Your task to perform on an android device: remove spam from my inbox in the gmail app Image 0: 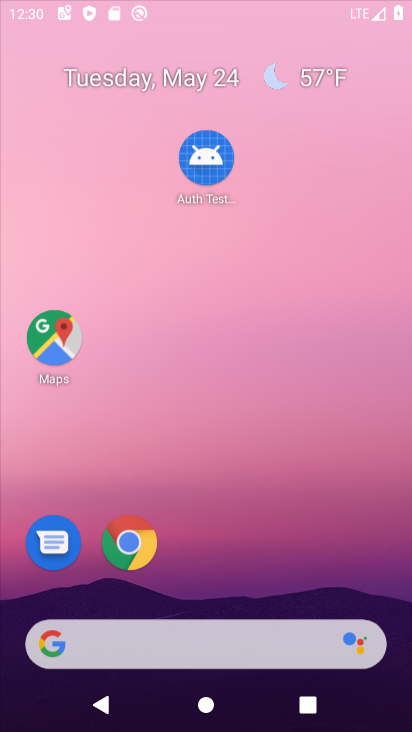
Step 0: click (346, 90)
Your task to perform on an android device: remove spam from my inbox in the gmail app Image 1: 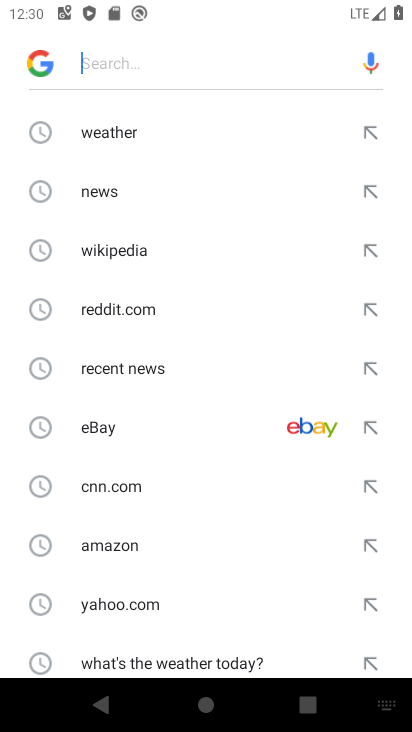
Step 1: press home button
Your task to perform on an android device: remove spam from my inbox in the gmail app Image 2: 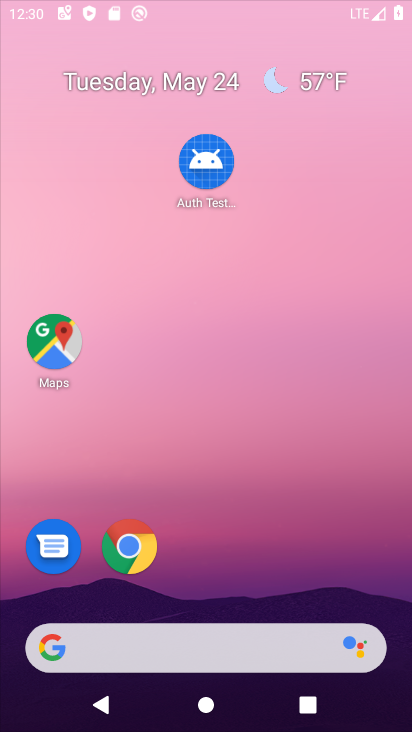
Step 2: drag from (185, 617) to (317, 67)
Your task to perform on an android device: remove spam from my inbox in the gmail app Image 3: 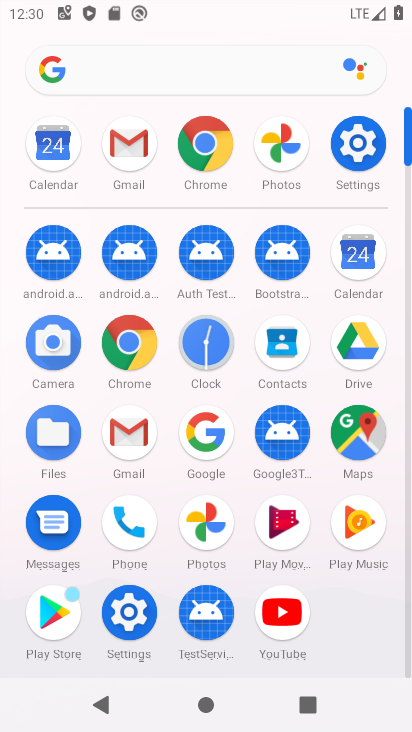
Step 3: click (143, 440)
Your task to perform on an android device: remove spam from my inbox in the gmail app Image 4: 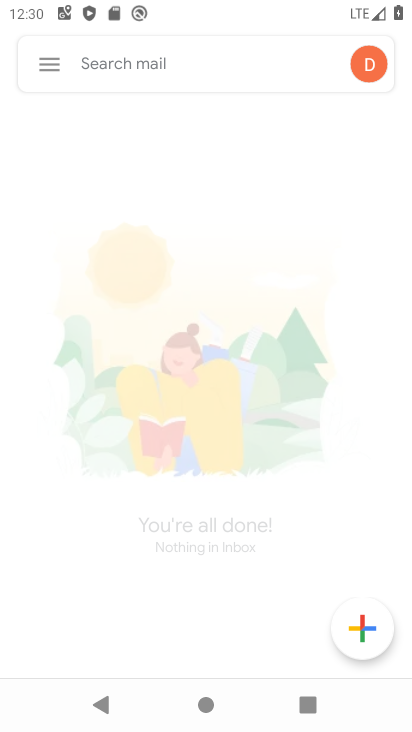
Step 4: drag from (198, 577) to (306, 146)
Your task to perform on an android device: remove spam from my inbox in the gmail app Image 5: 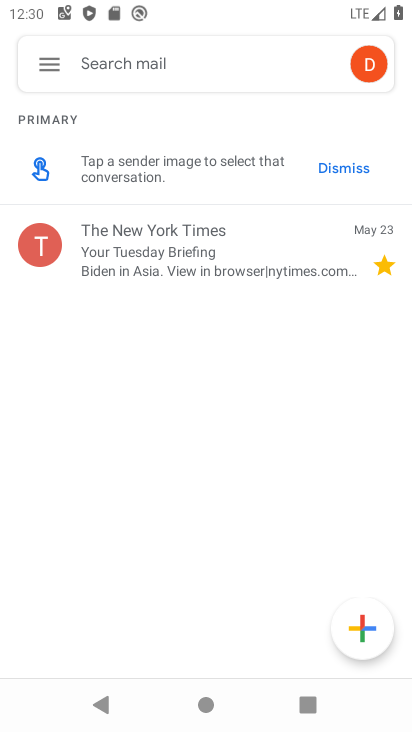
Step 5: click (81, 61)
Your task to perform on an android device: remove spam from my inbox in the gmail app Image 6: 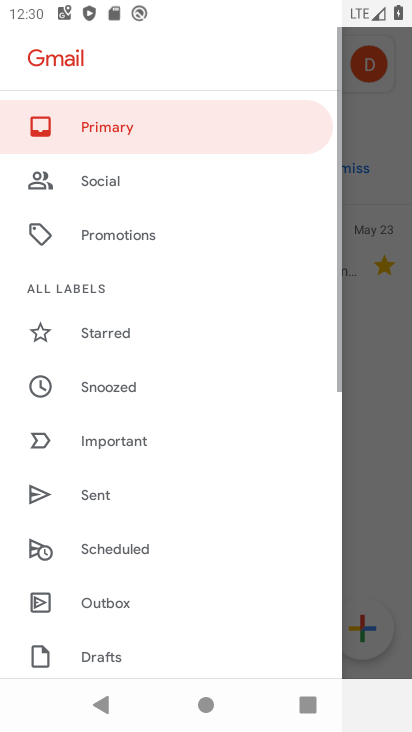
Step 6: drag from (186, 546) to (267, 162)
Your task to perform on an android device: remove spam from my inbox in the gmail app Image 7: 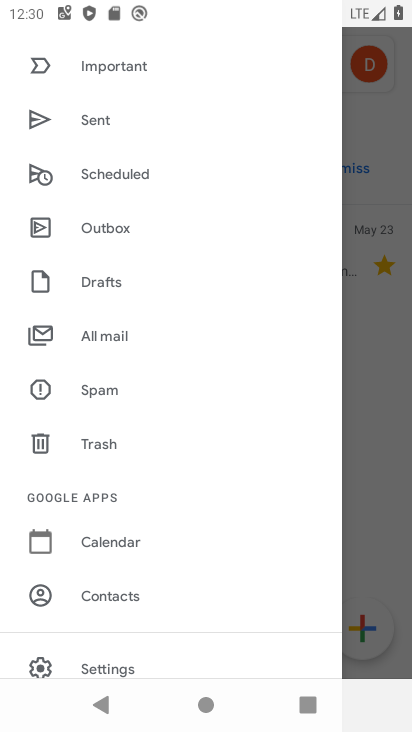
Step 7: click (94, 387)
Your task to perform on an android device: remove spam from my inbox in the gmail app Image 8: 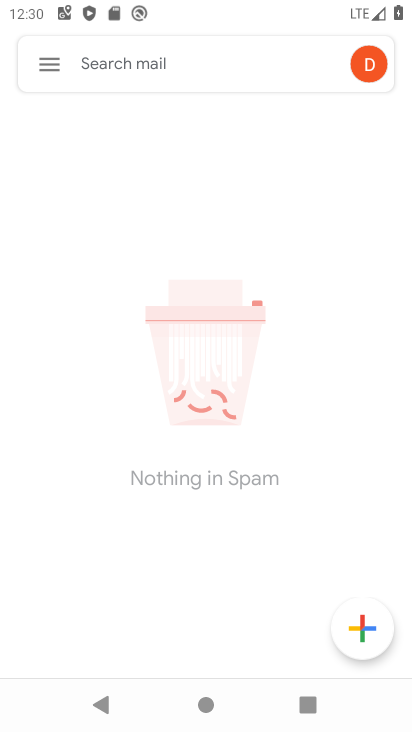
Step 8: task complete